Your task to perform on an android device: empty trash in google photos Image 0: 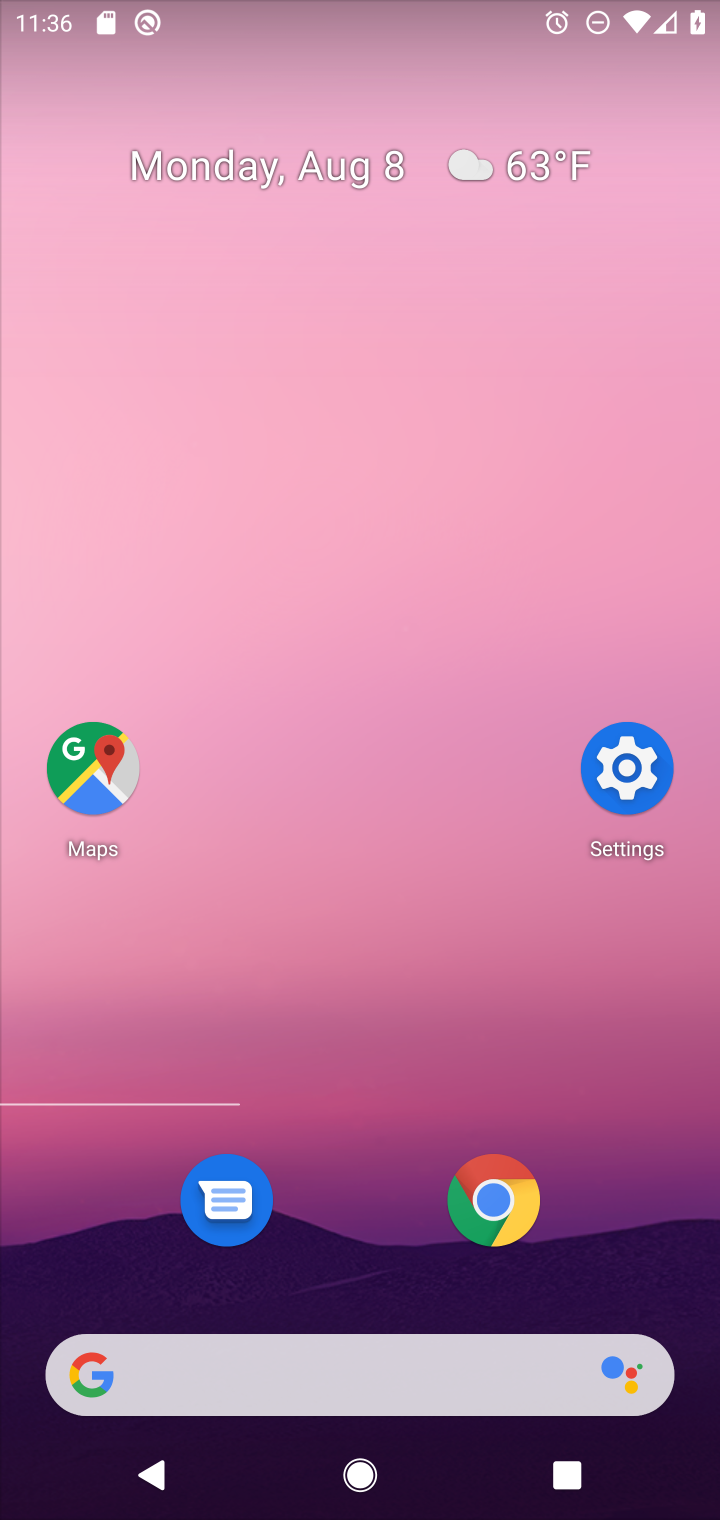
Step 0: drag from (374, 1384) to (524, 313)
Your task to perform on an android device: empty trash in google photos Image 1: 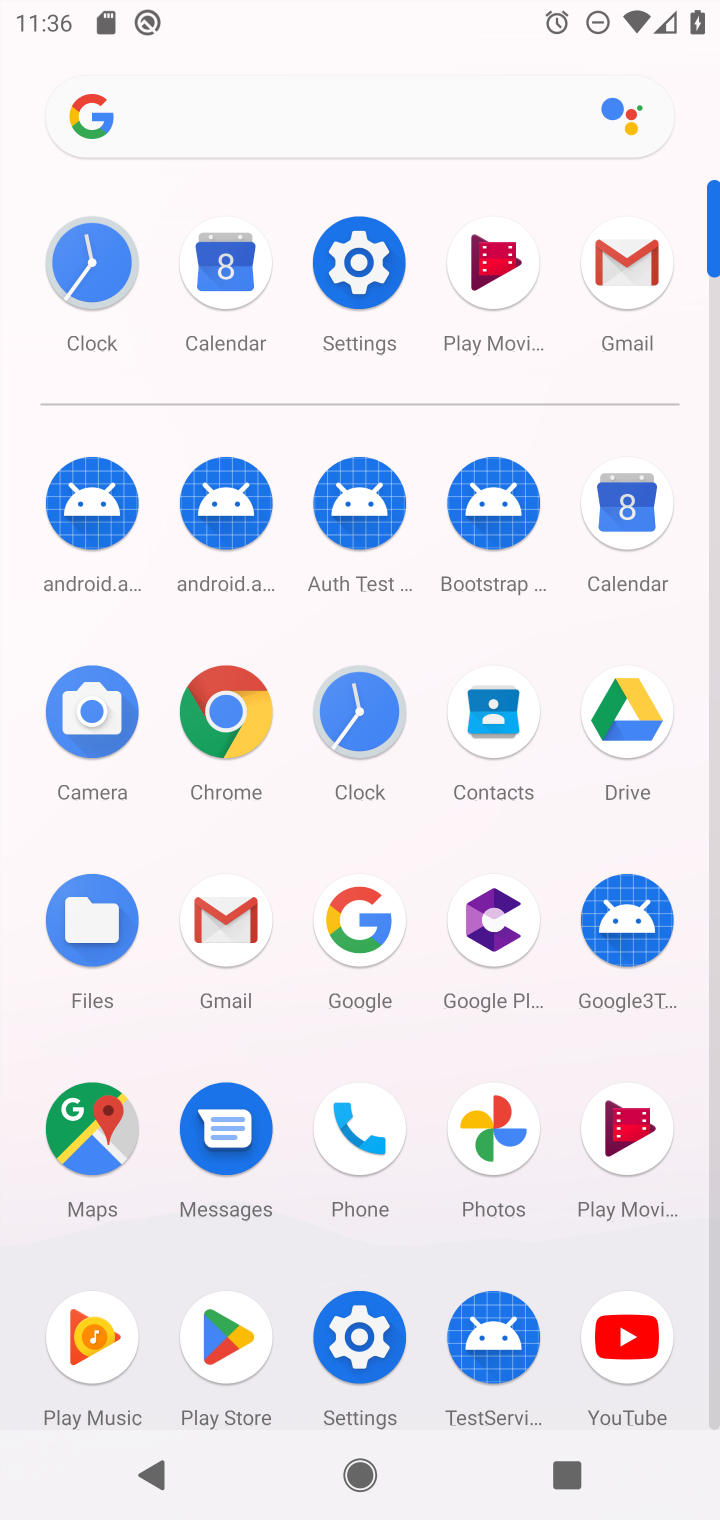
Step 1: click (483, 1119)
Your task to perform on an android device: empty trash in google photos Image 2: 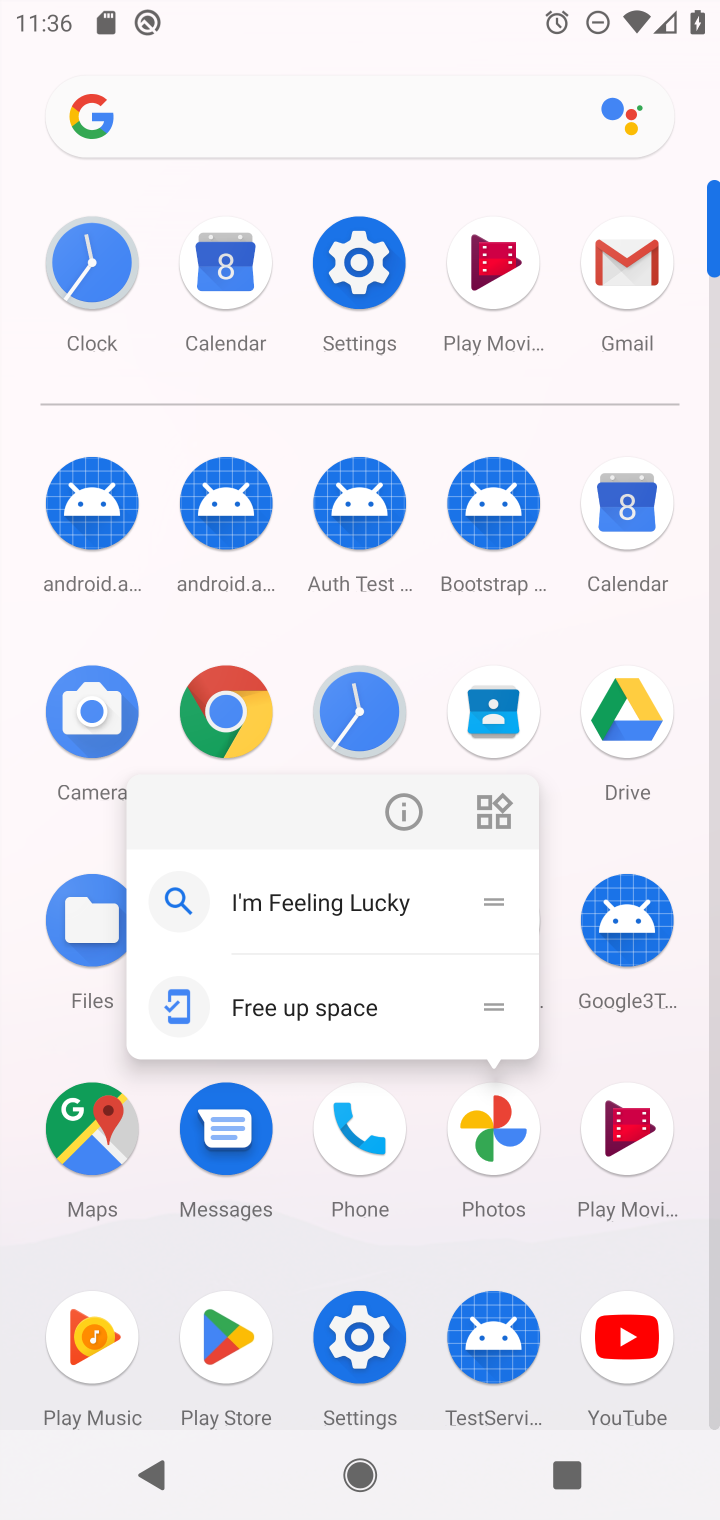
Step 2: click (483, 1119)
Your task to perform on an android device: empty trash in google photos Image 3: 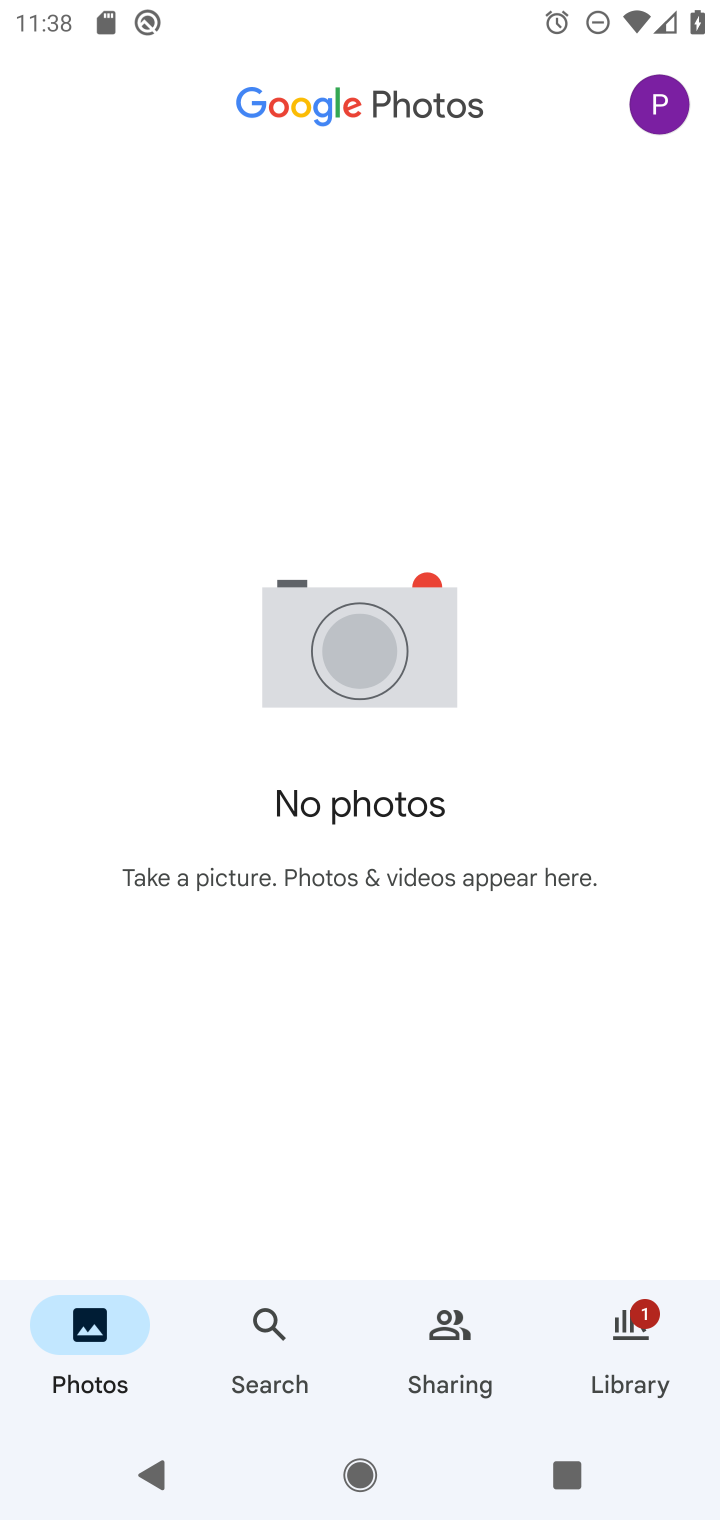
Step 3: click (628, 1337)
Your task to perform on an android device: empty trash in google photos Image 4: 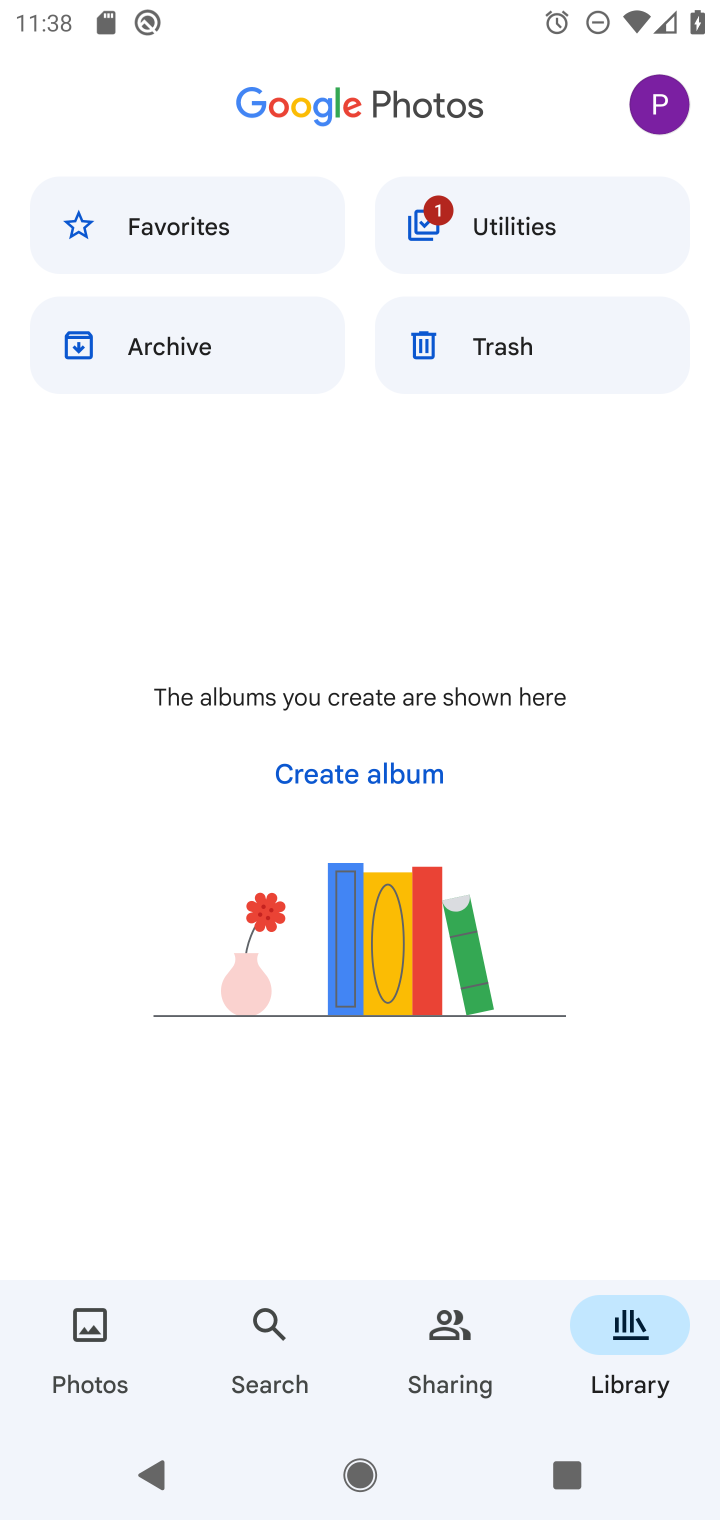
Step 4: click (514, 349)
Your task to perform on an android device: empty trash in google photos Image 5: 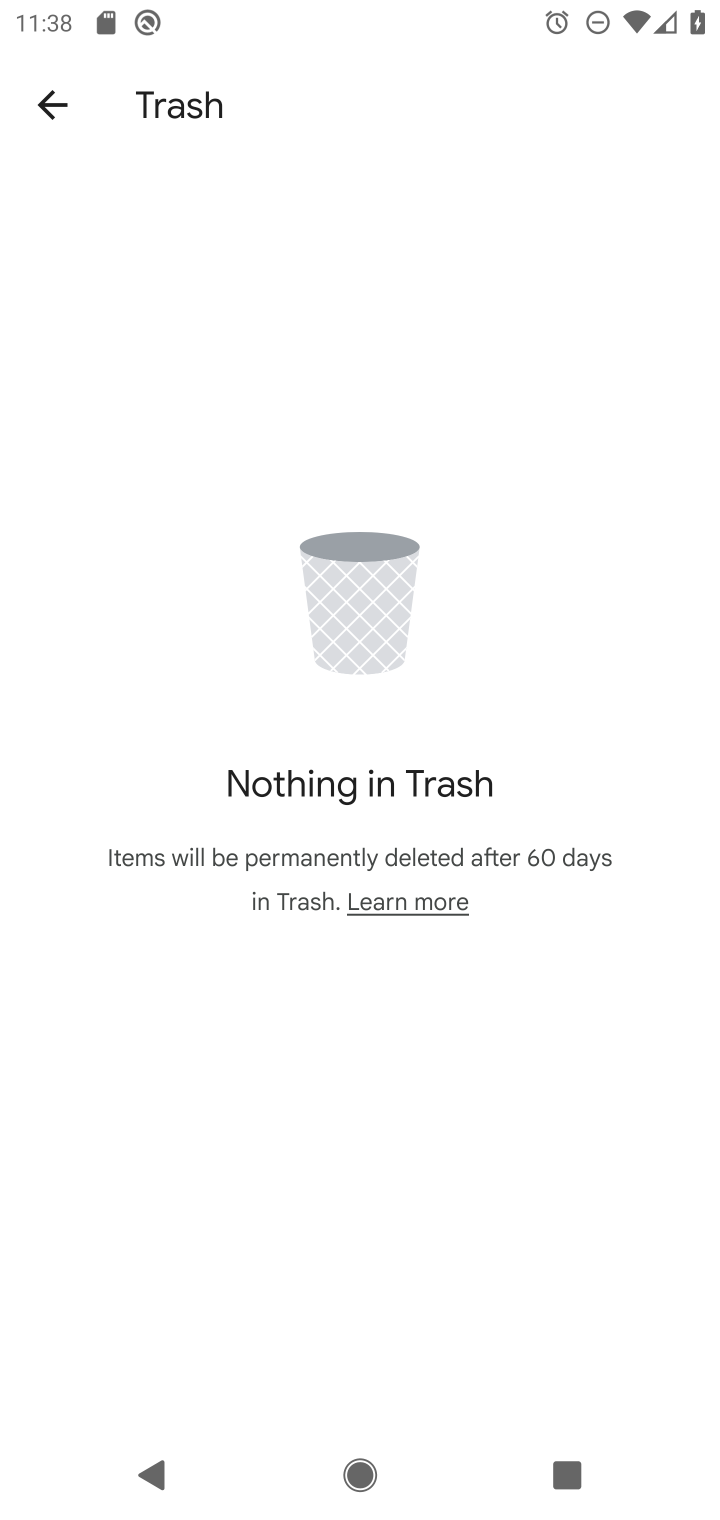
Step 5: task complete